Your task to perform on an android device: Show me recent news Image 0: 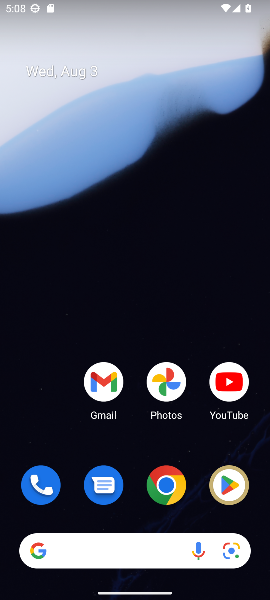
Step 0: click (170, 494)
Your task to perform on an android device: Show me recent news Image 1: 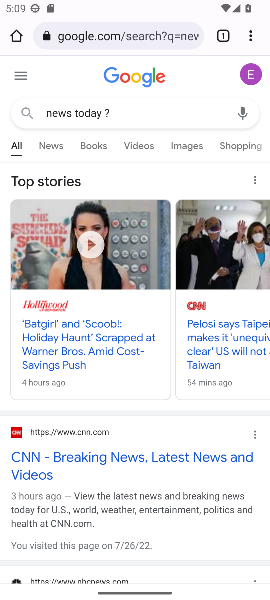
Step 1: click (168, 39)
Your task to perform on an android device: Show me recent news Image 2: 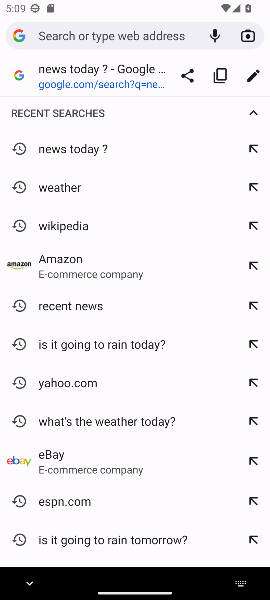
Step 2: type "recent news"
Your task to perform on an android device: Show me recent news Image 3: 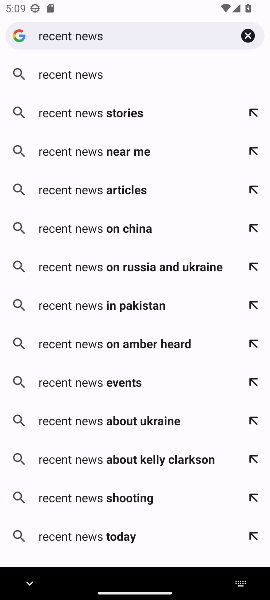
Step 3: click (135, 75)
Your task to perform on an android device: Show me recent news Image 4: 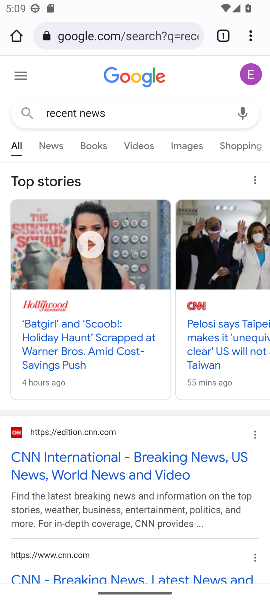
Step 4: task complete